Your task to perform on an android device: delete location history Image 0: 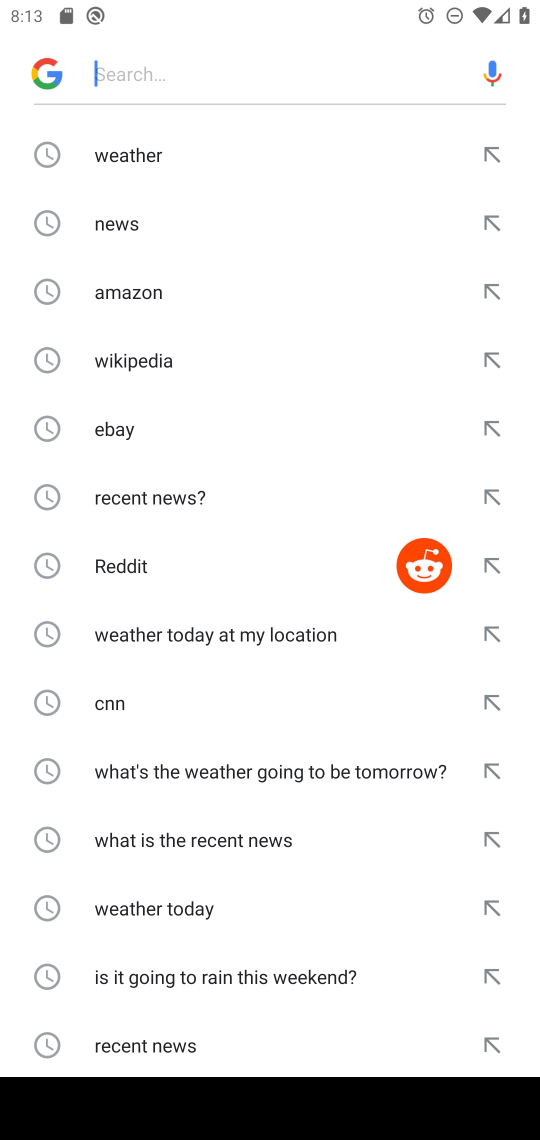
Step 0: press home button
Your task to perform on an android device: delete location history Image 1: 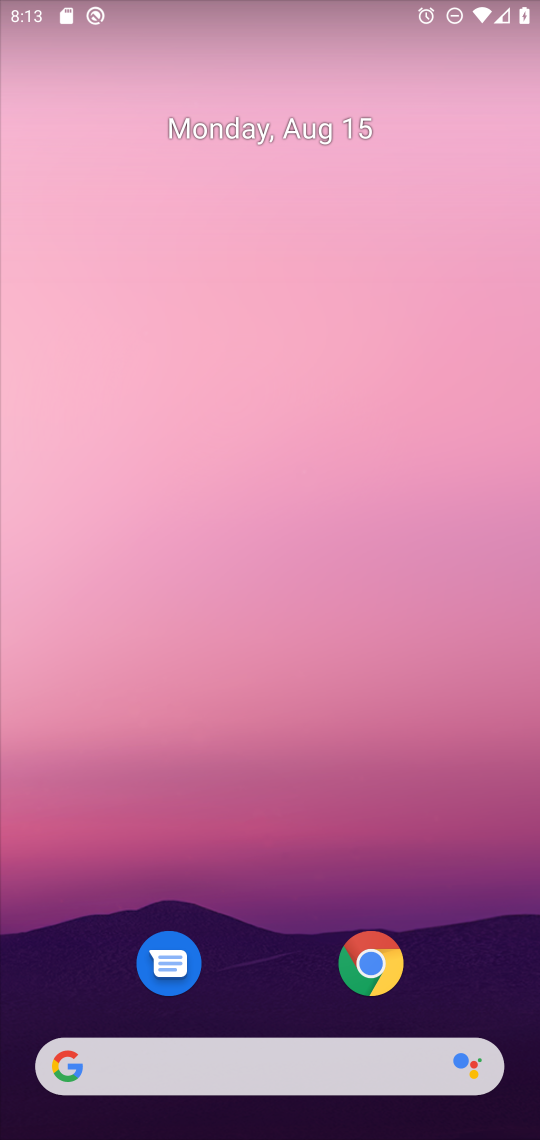
Step 1: drag from (247, 1001) to (238, 43)
Your task to perform on an android device: delete location history Image 2: 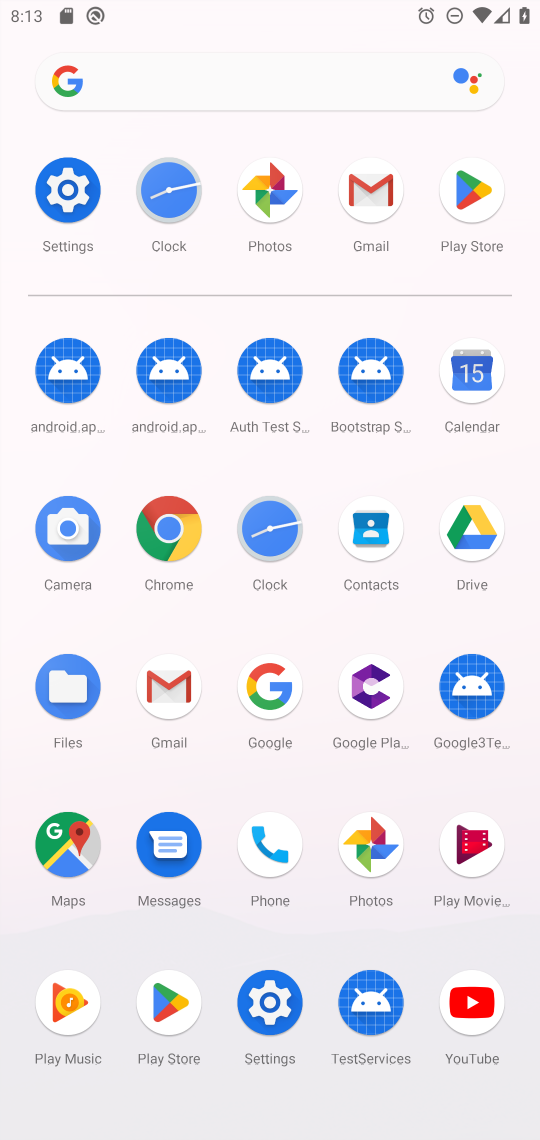
Step 2: click (90, 179)
Your task to perform on an android device: delete location history Image 3: 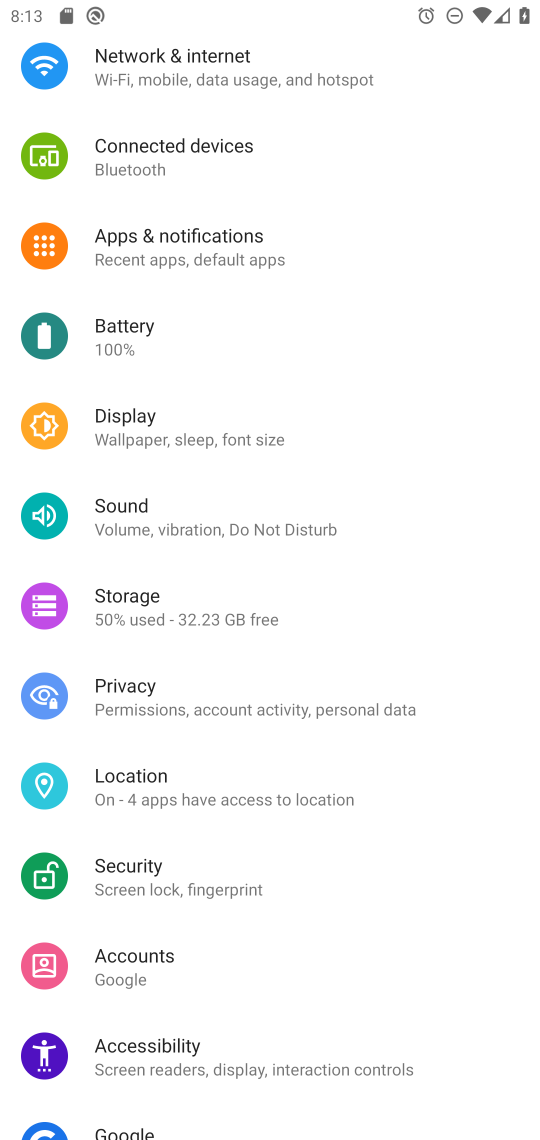
Step 3: press home button
Your task to perform on an android device: delete location history Image 4: 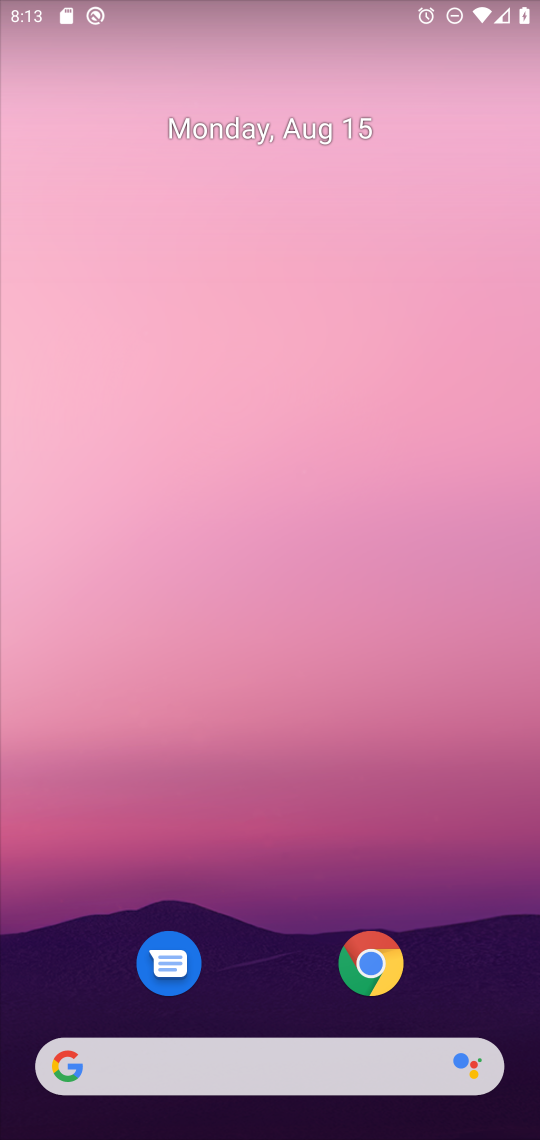
Step 4: drag from (481, 794) to (49, 693)
Your task to perform on an android device: delete location history Image 5: 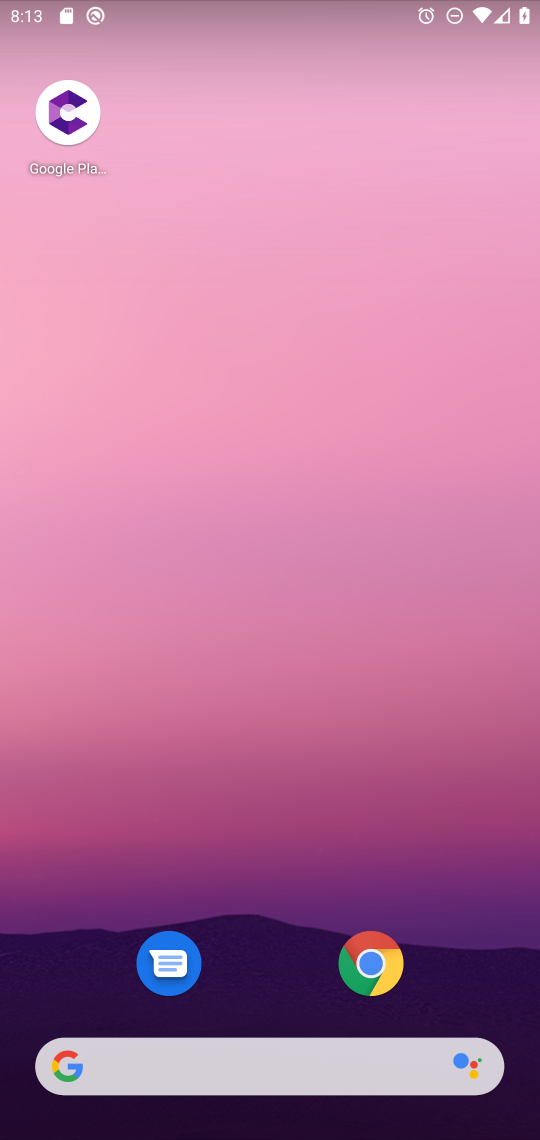
Step 5: click (50, 797)
Your task to perform on an android device: delete location history Image 6: 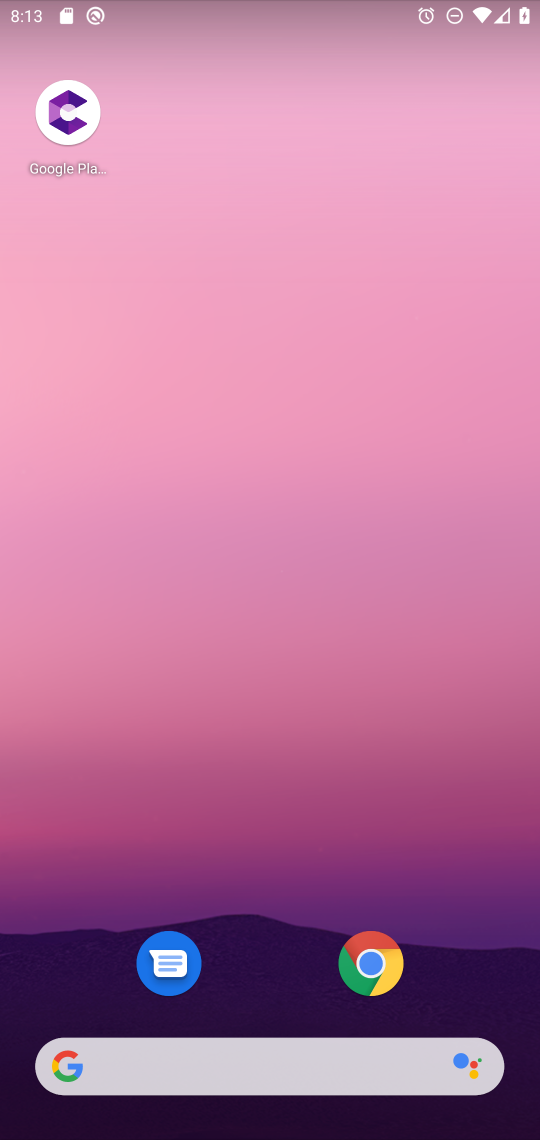
Step 6: drag from (269, 974) to (194, 166)
Your task to perform on an android device: delete location history Image 7: 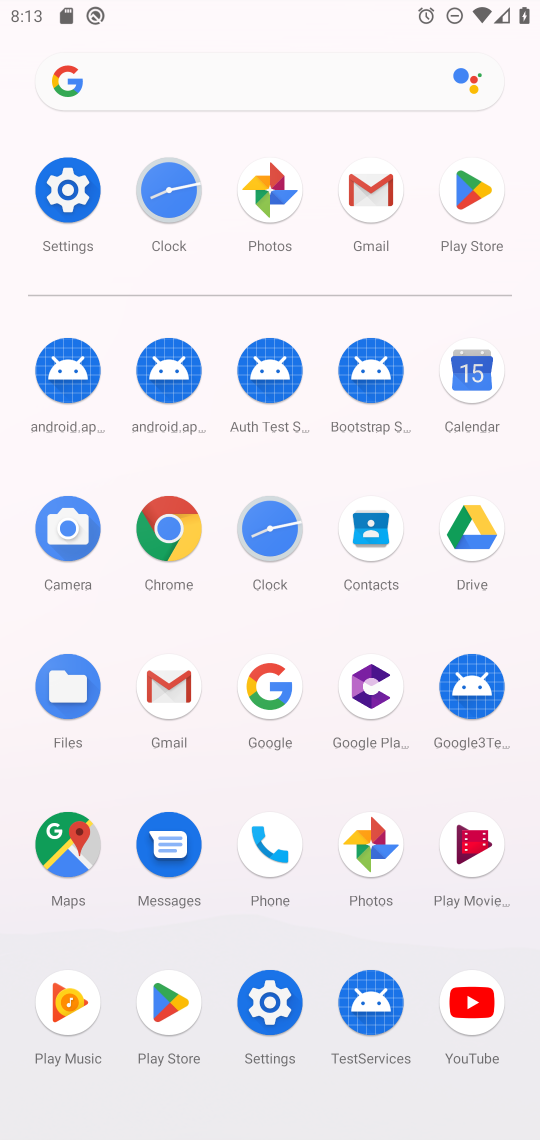
Step 7: click (82, 822)
Your task to perform on an android device: delete location history Image 8: 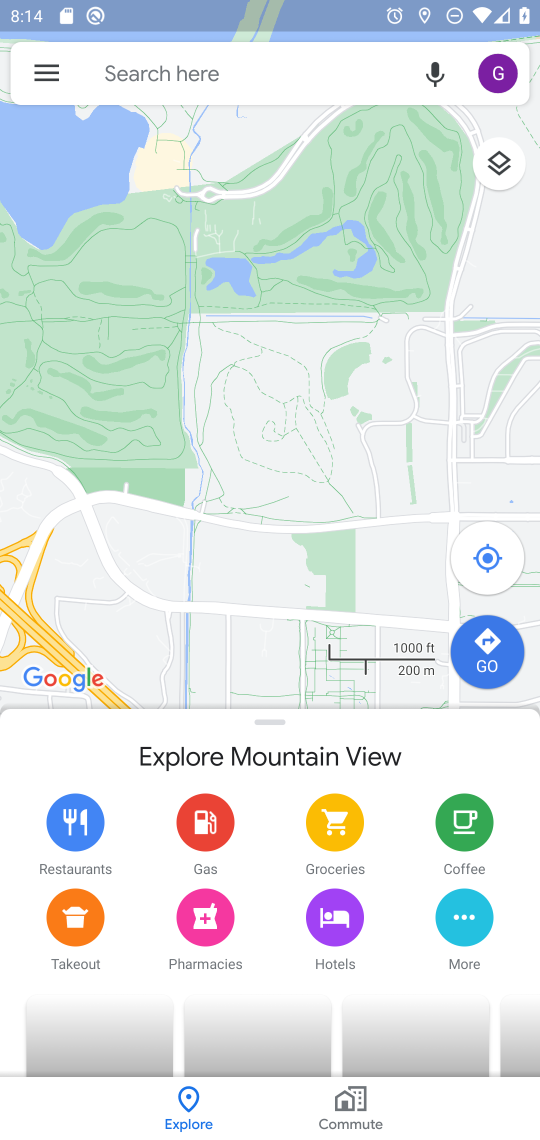
Step 8: click (49, 74)
Your task to perform on an android device: delete location history Image 9: 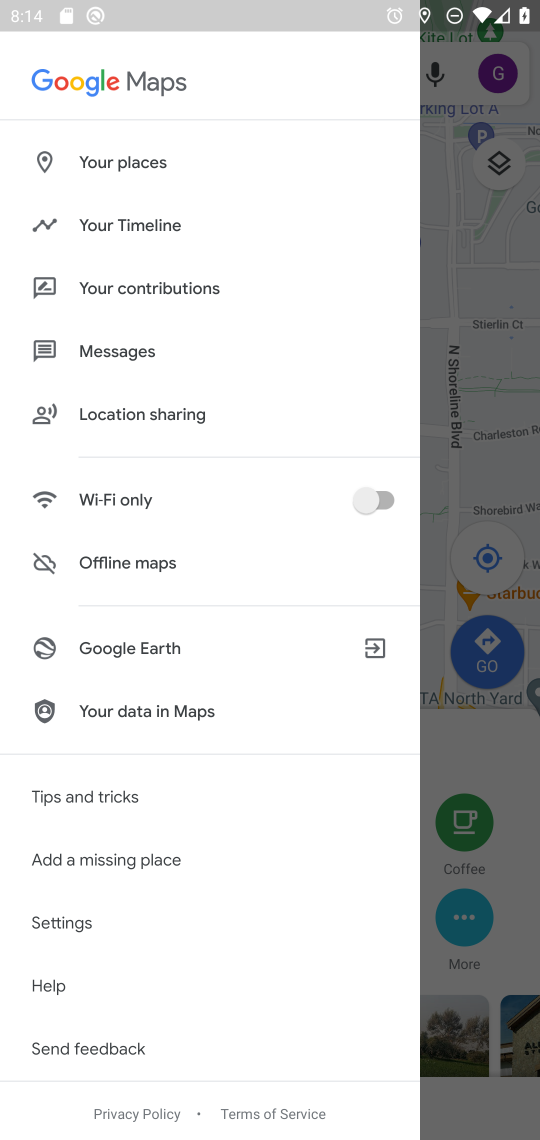
Step 9: click (220, 226)
Your task to perform on an android device: delete location history Image 10: 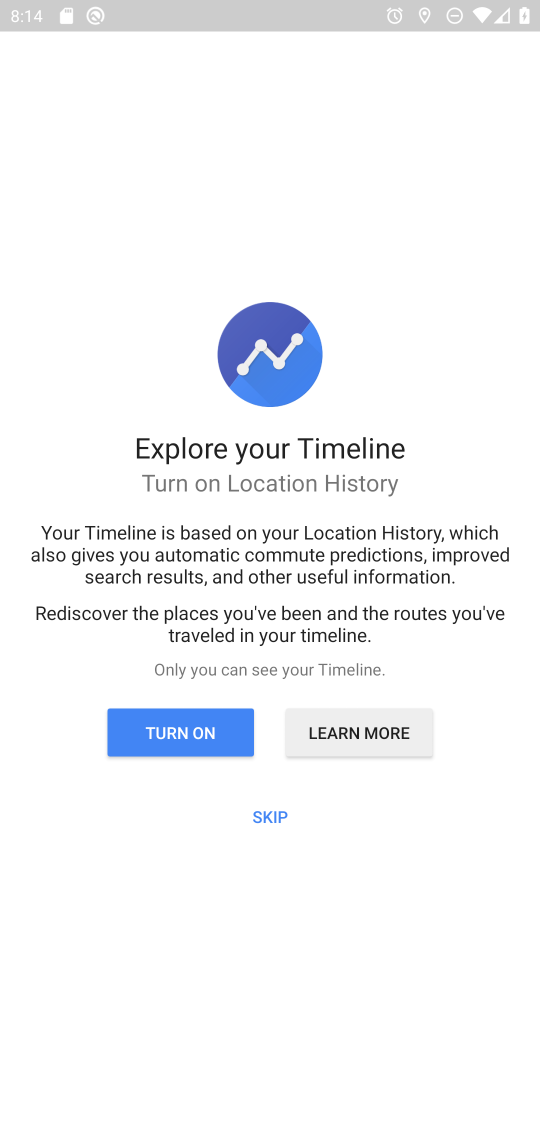
Step 10: click (202, 735)
Your task to perform on an android device: delete location history Image 11: 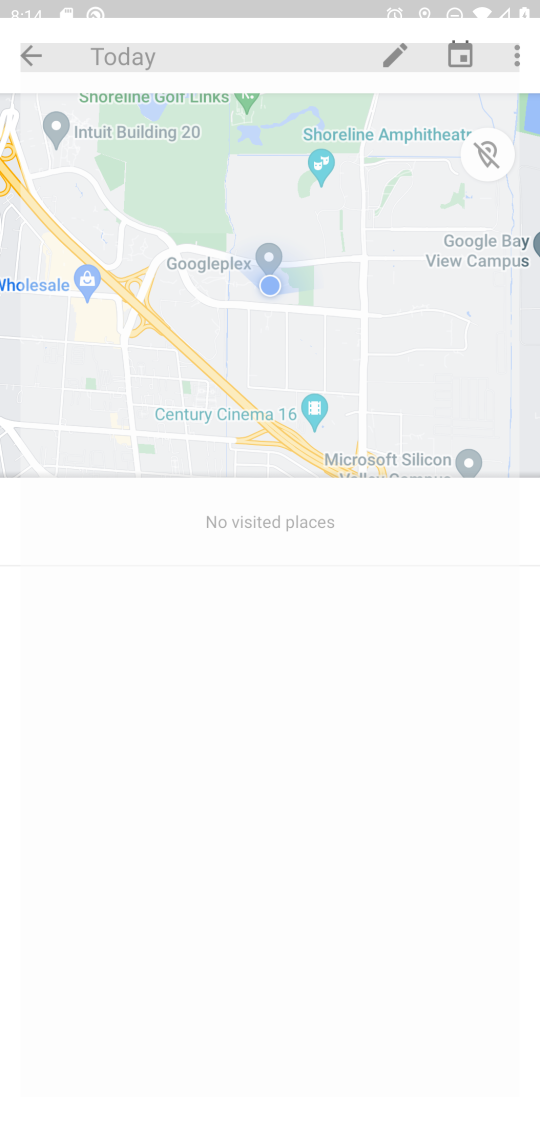
Step 11: click (527, 67)
Your task to perform on an android device: delete location history Image 12: 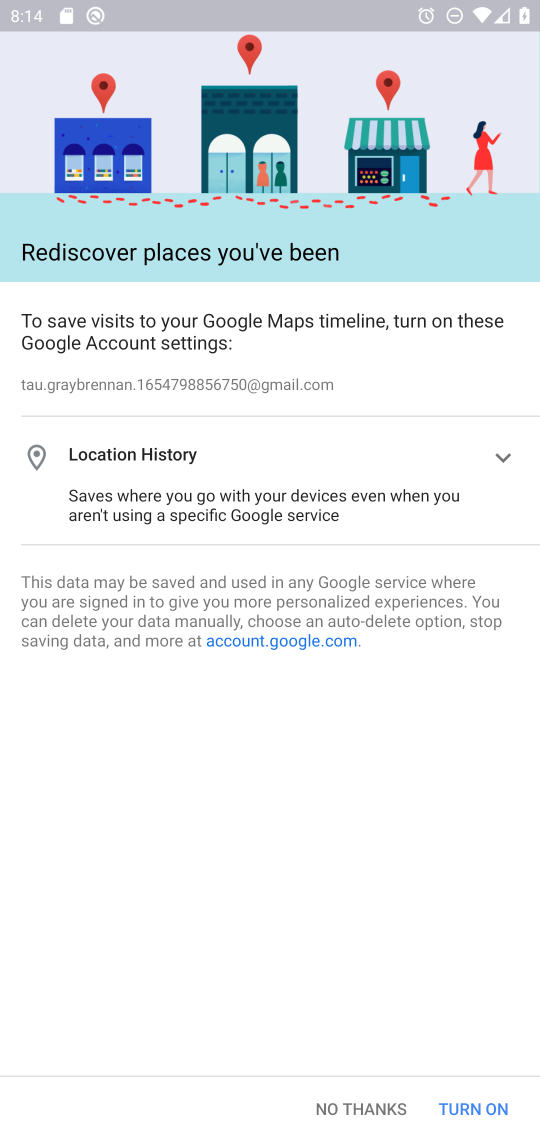
Step 12: click (307, 239)
Your task to perform on an android device: delete location history Image 13: 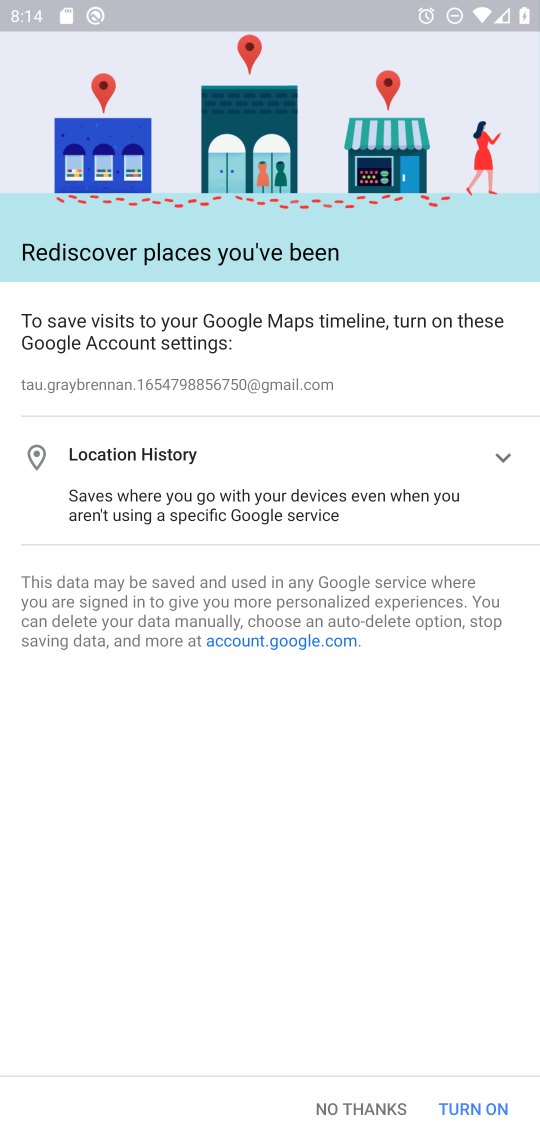
Step 13: click (292, 448)
Your task to perform on an android device: delete location history Image 14: 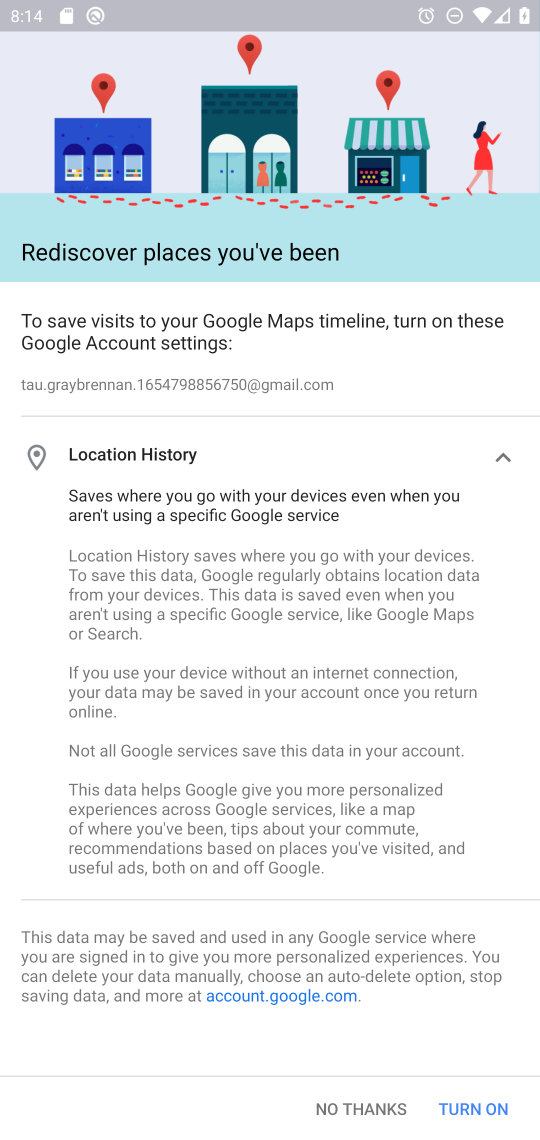
Step 14: press back button
Your task to perform on an android device: delete location history Image 15: 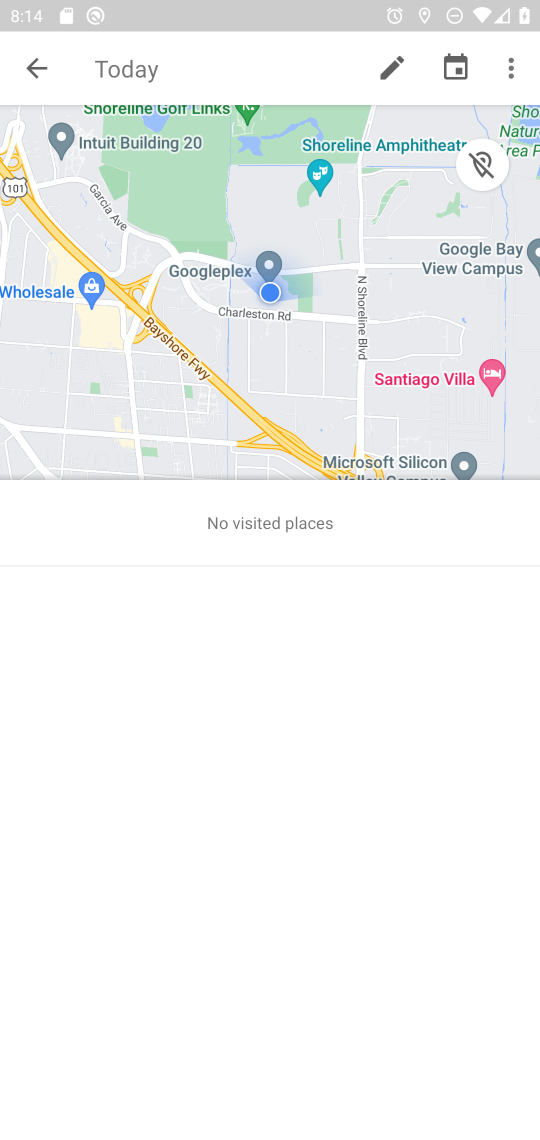
Step 15: click (515, 65)
Your task to perform on an android device: delete location history Image 16: 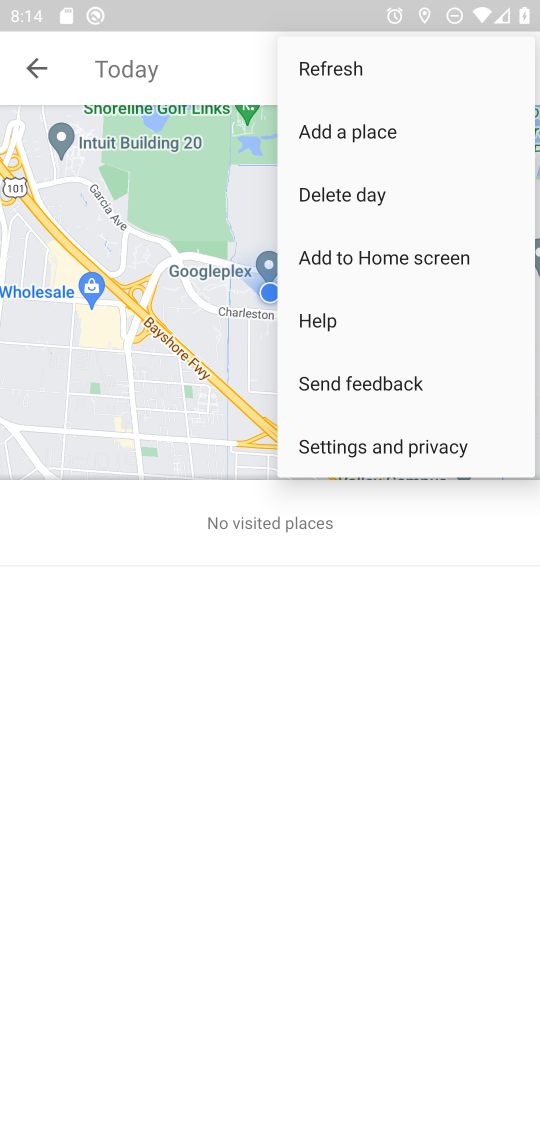
Step 16: click (339, 453)
Your task to perform on an android device: delete location history Image 17: 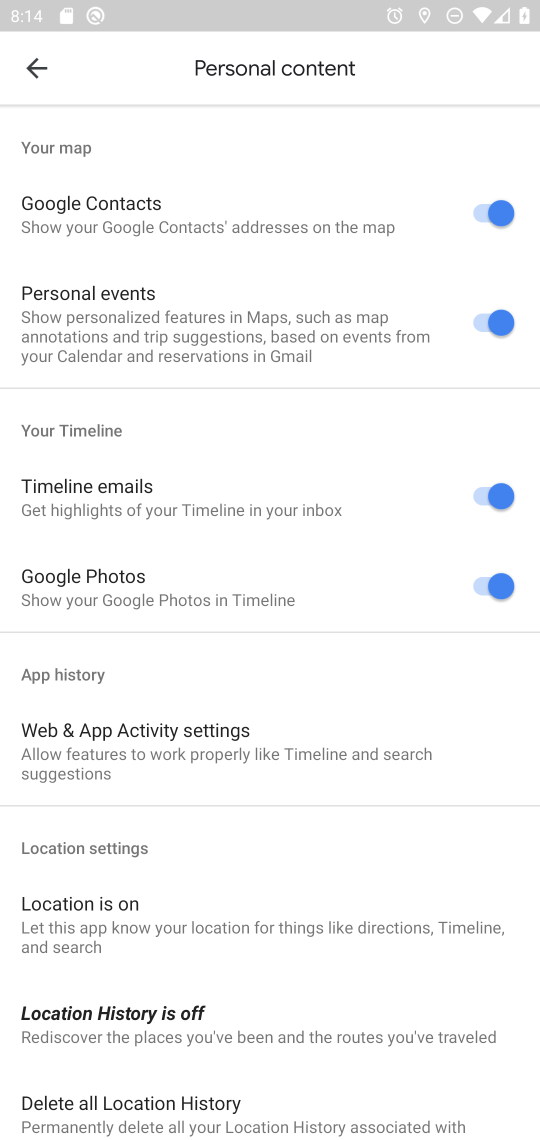
Step 17: click (222, 1075)
Your task to perform on an android device: delete location history Image 18: 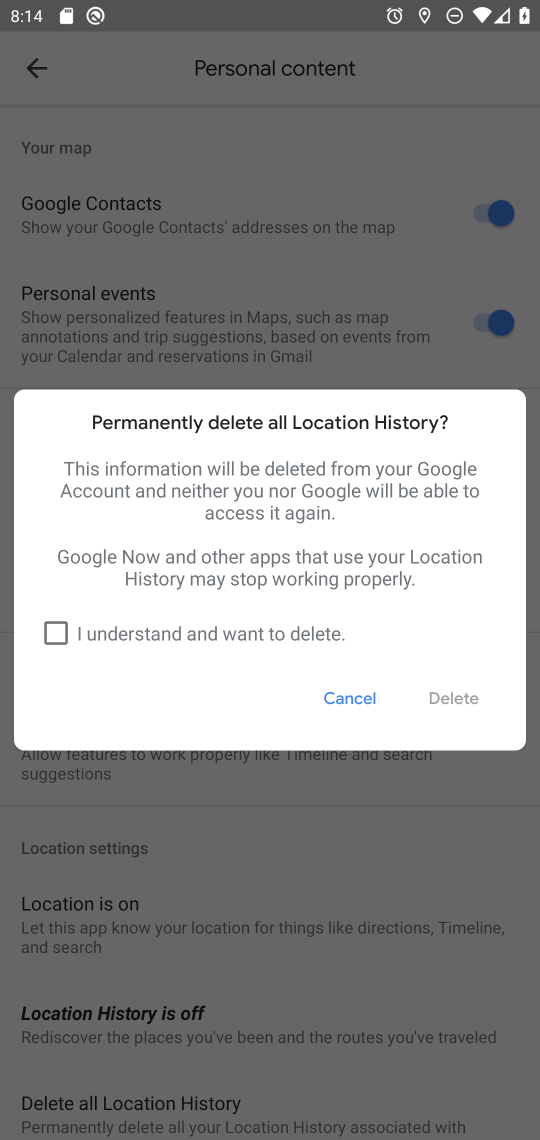
Step 18: click (62, 629)
Your task to perform on an android device: delete location history Image 19: 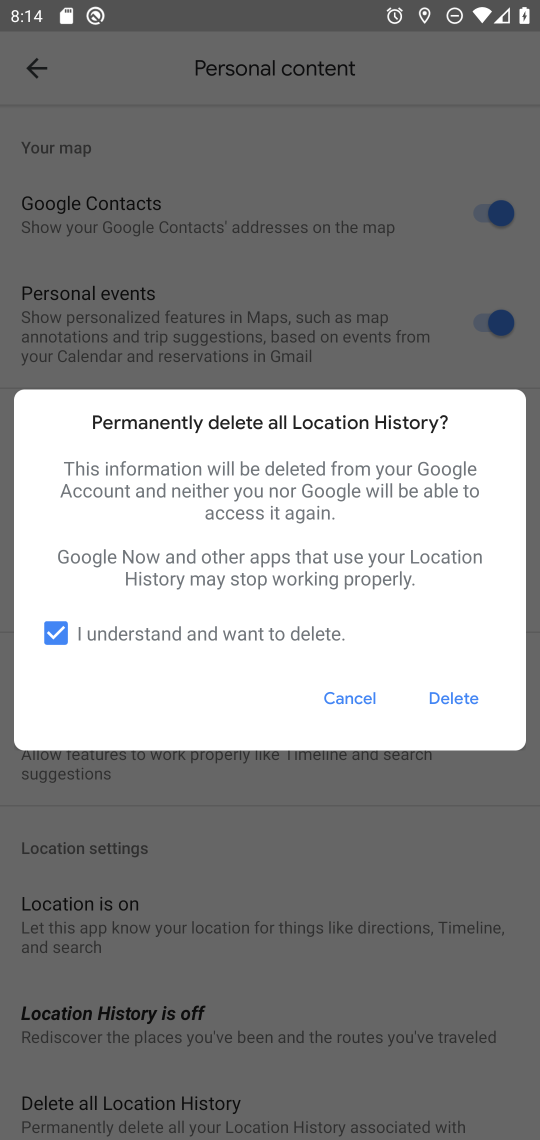
Step 19: click (476, 698)
Your task to perform on an android device: delete location history Image 20: 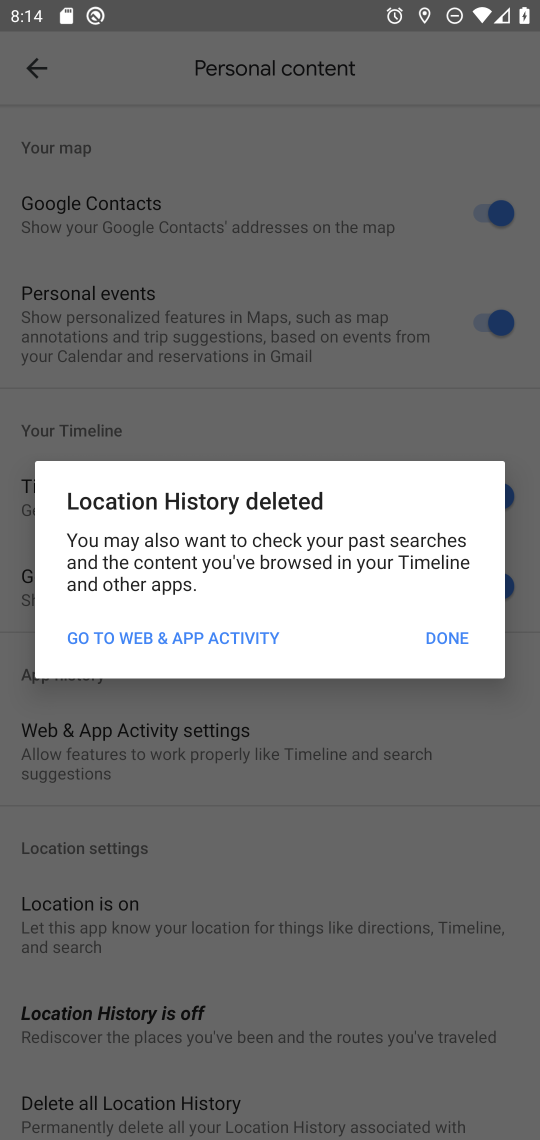
Step 20: click (463, 646)
Your task to perform on an android device: delete location history Image 21: 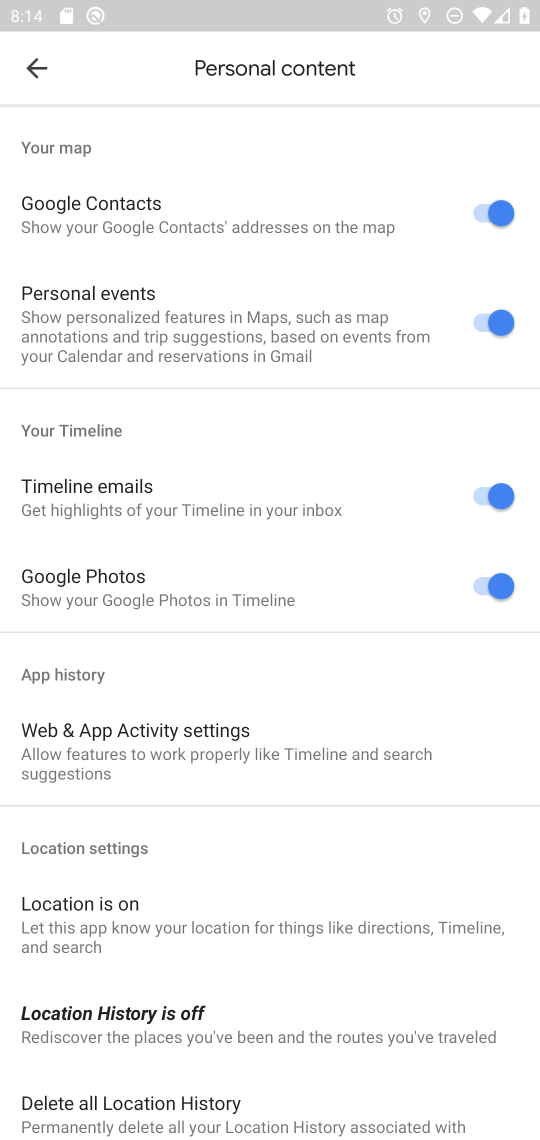
Step 21: task complete